Your task to perform on an android device: turn on notifications settings in the gmail app Image 0: 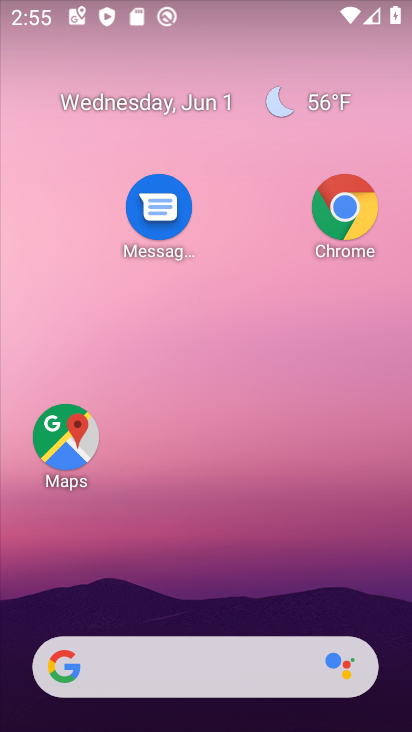
Step 0: drag from (229, 582) to (268, 18)
Your task to perform on an android device: turn on notifications settings in the gmail app Image 1: 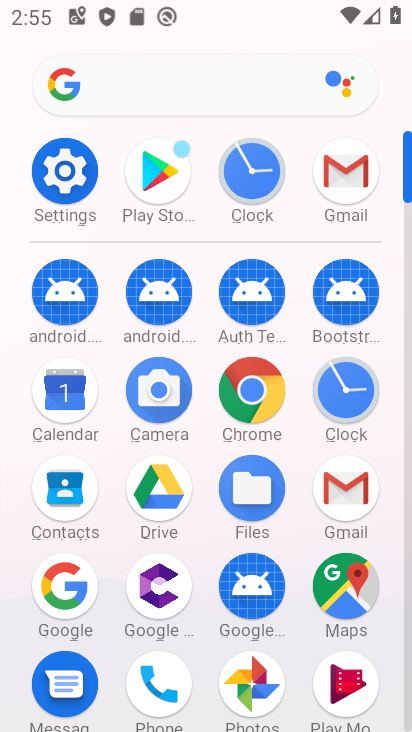
Step 1: click (357, 481)
Your task to perform on an android device: turn on notifications settings in the gmail app Image 2: 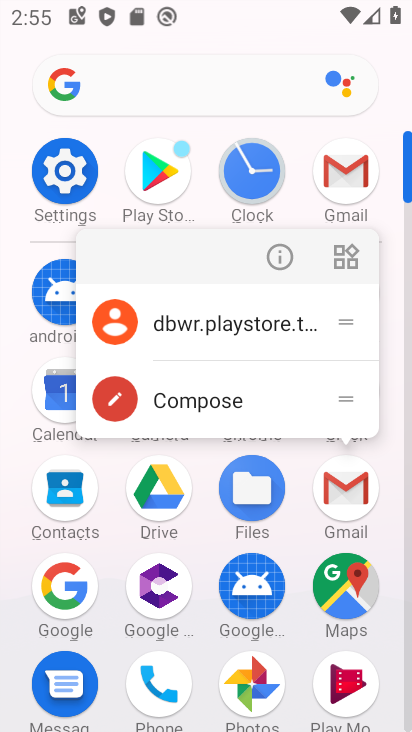
Step 2: click (283, 258)
Your task to perform on an android device: turn on notifications settings in the gmail app Image 3: 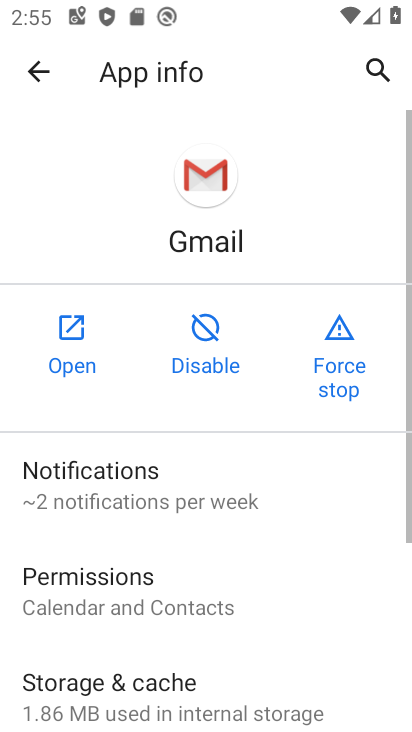
Step 3: click (72, 355)
Your task to perform on an android device: turn on notifications settings in the gmail app Image 4: 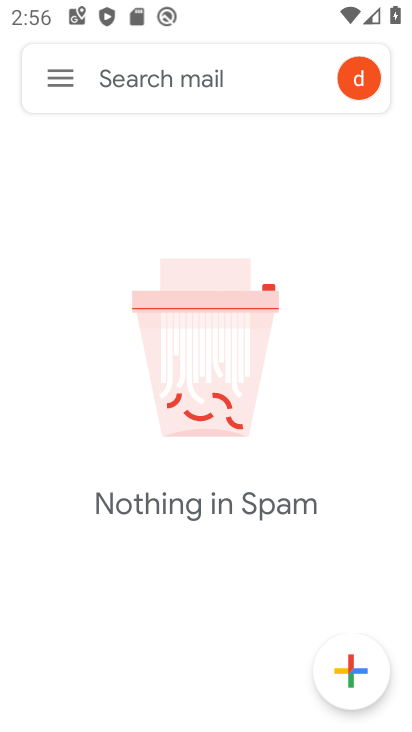
Step 4: drag from (254, 475) to (296, 251)
Your task to perform on an android device: turn on notifications settings in the gmail app Image 5: 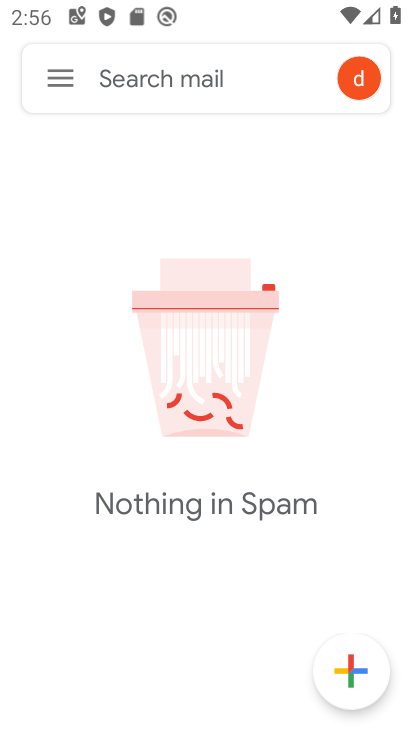
Step 5: drag from (197, 540) to (269, 322)
Your task to perform on an android device: turn on notifications settings in the gmail app Image 6: 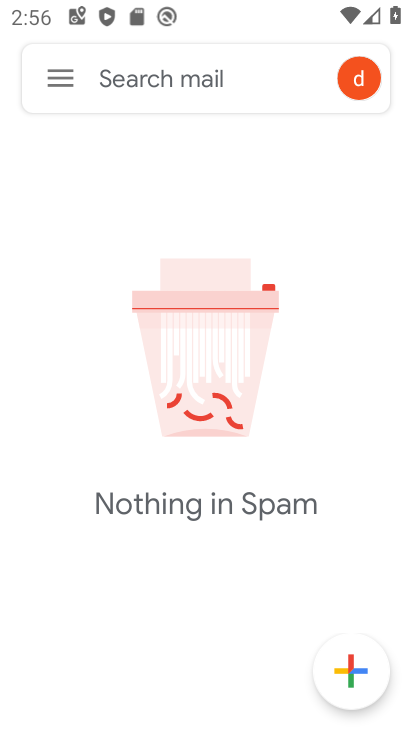
Step 6: click (48, 68)
Your task to perform on an android device: turn on notifications settings in the gmail app Image 7: 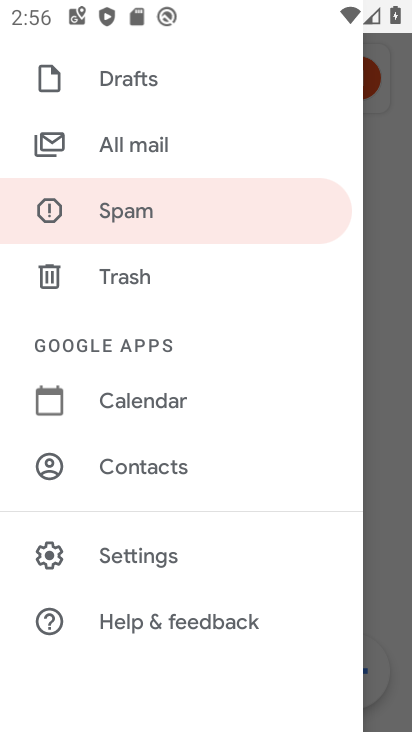
Step 7: click (173, 546)
Your task to perform on an android device: turn on notifications settings in the gmail app Image 8: 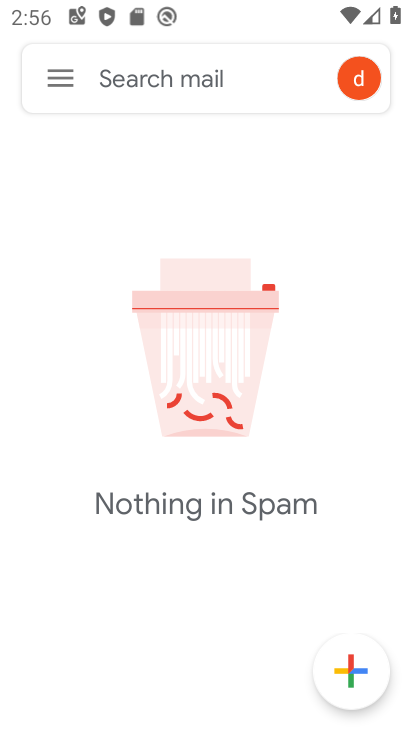
Step 8: drag from (175, 528) to (262, 84)
Your task to perform on an android device: turn on notifications settings in the gmail app Image 9: 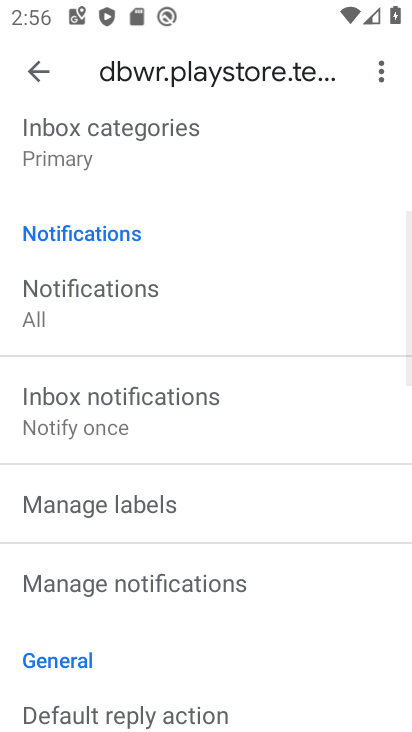
Step 9: drag from (222, 594) to (242, 120)
Your task to perform on an android device: turn on notifications settings in the gmail app Image 10: 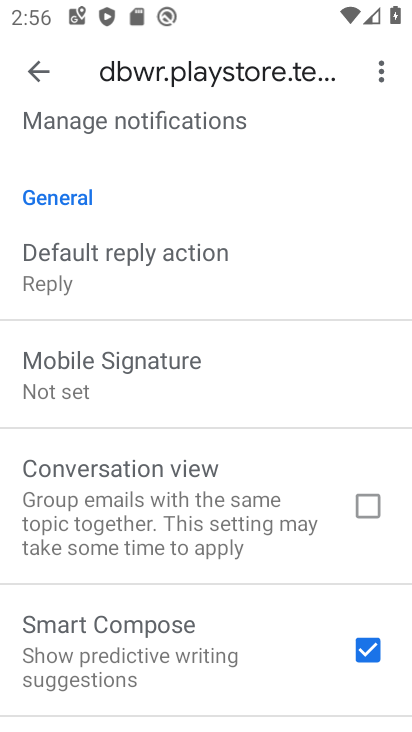
Step 10: drag from (174, 229) to (237, 659)
Your task to perform on an android device: turn on notifications settings in the gmail app Image 11: 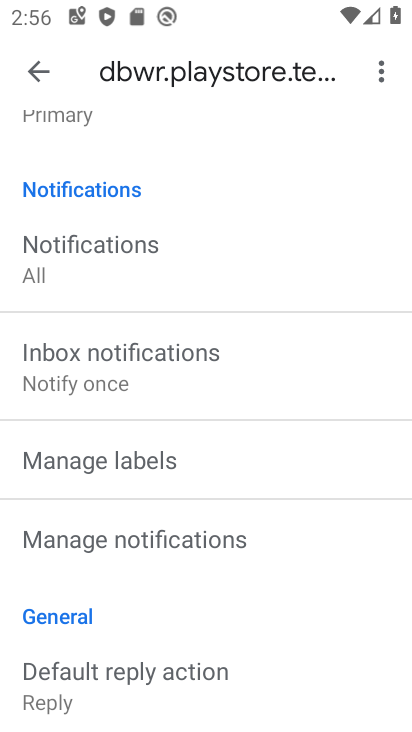
Step 11: click (130, 262)
Your task to perform on an android device: turn on notifications settings in the gmail app Image 12: 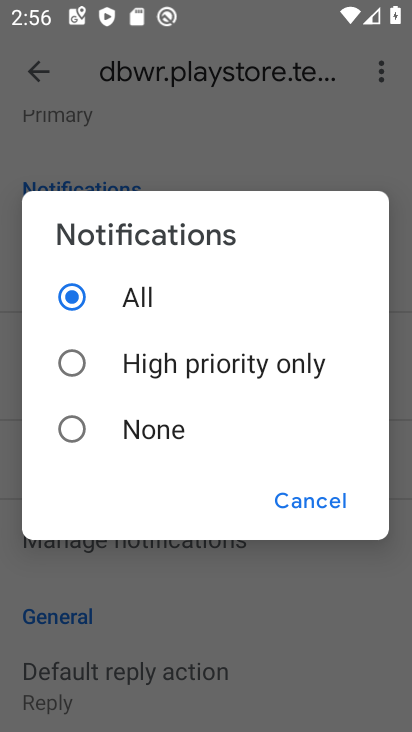
Step 12: click (311, 504)
Your task to perform on an android device: turn on notifications settings in the gmail app Image 13: 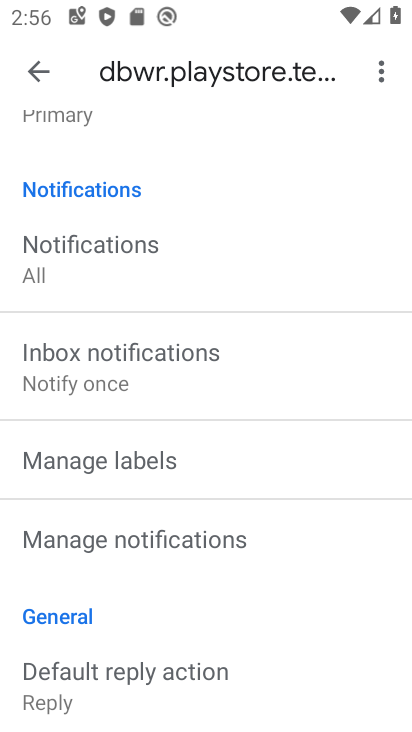
Step 13: click (208, 540)
Your task to perform on an android device: turn on notifications settings in the gmail app Image 14: 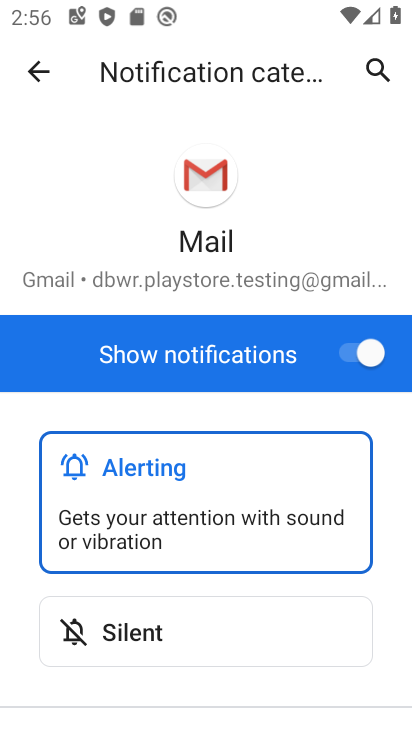
Step 14: task complete